Your task to perform on an android device: What's the weather going to be this weekend? Image 0: 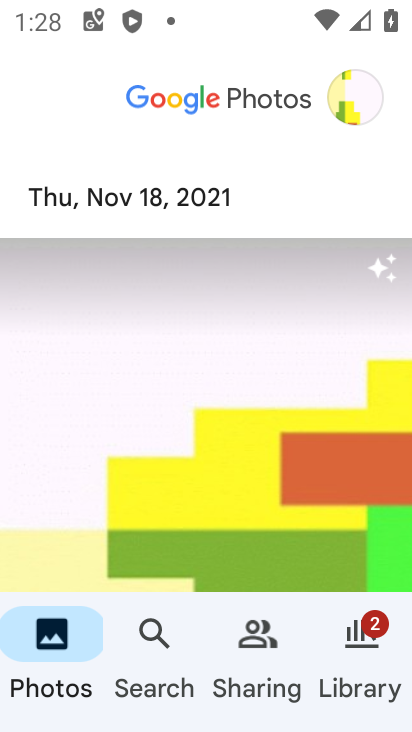
Step 0: press home button
Your task to perform on an android device: What's the weather going to be this weekend? Image 1: 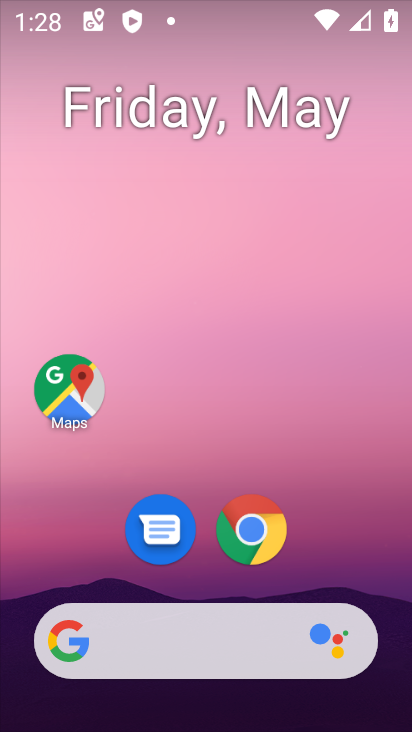
Step 1: drag from (353, 504) to (278, 120)
Your task to perform on an android device: What's the weather going to be this weekend? Image 2: 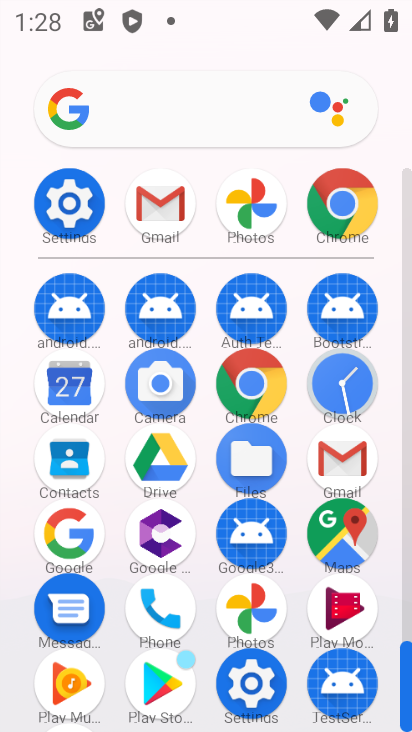
Step 2: click (172, 136)
Your task to perform on an android device: What's the weather going to be this weekend? Image 3: 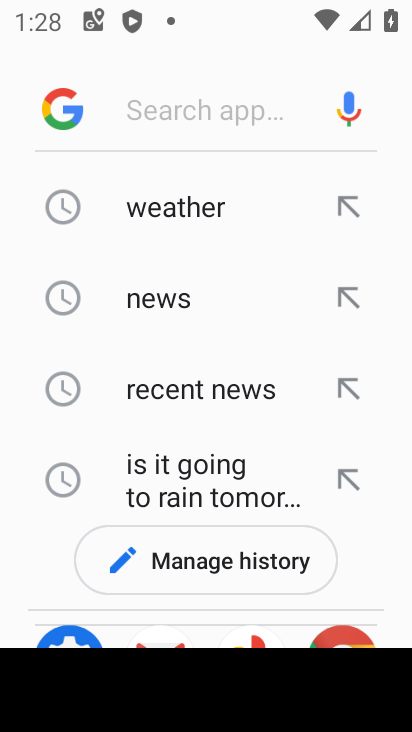
Step 3: click (193, 200)
Your task to perform on an android device: What's the weather going to be this weekend? Image 4: 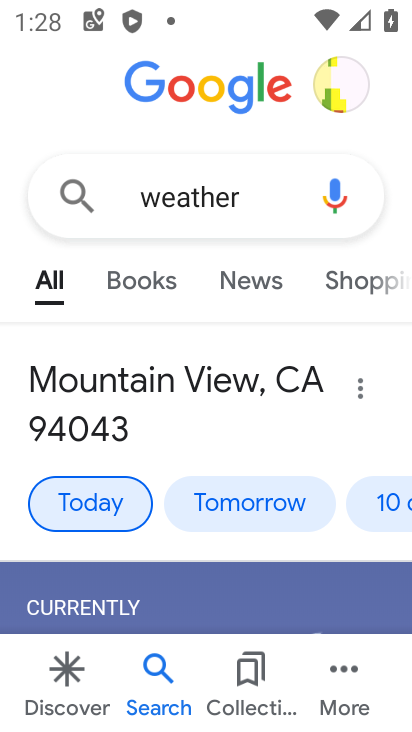
Step 4: click (376, 505)
Your task to perform on an android device: What's the weather going to be this weekend? Image 5: 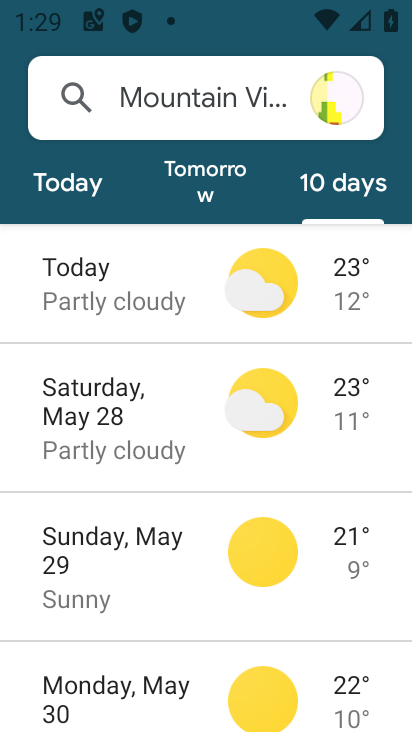
Step 5: task complete